Your task to perform on an android device: Open Android settings Image 0: 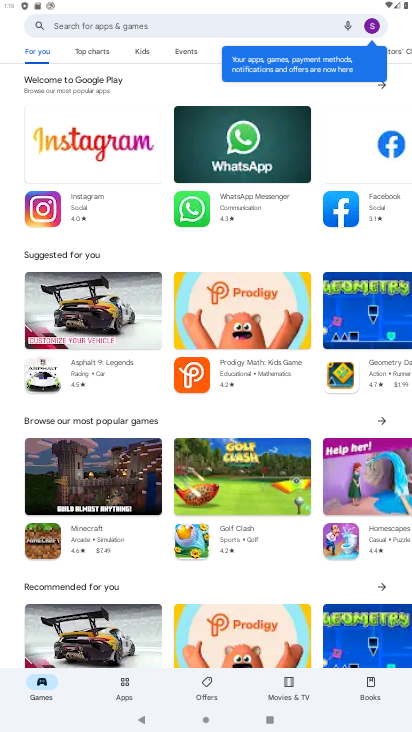
Step 0: press home button
Your task to perform on an android device: Open Android settings Image 1: 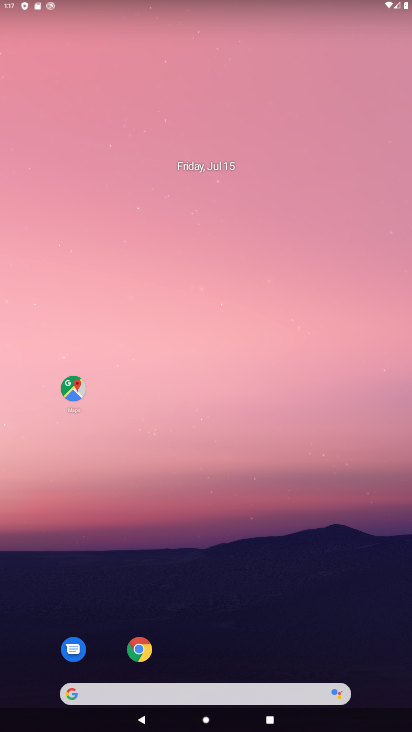
Step 1: drag from (163, 703) to (131, 32)
Your task to perform on an android device: Open Android settings Image 2: 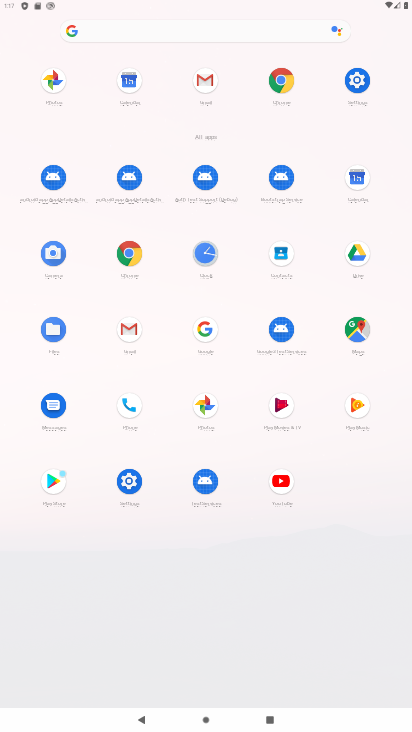
Step 2: click (353, 70)
Your task to perform on an android device: Open Android settings Image 3: 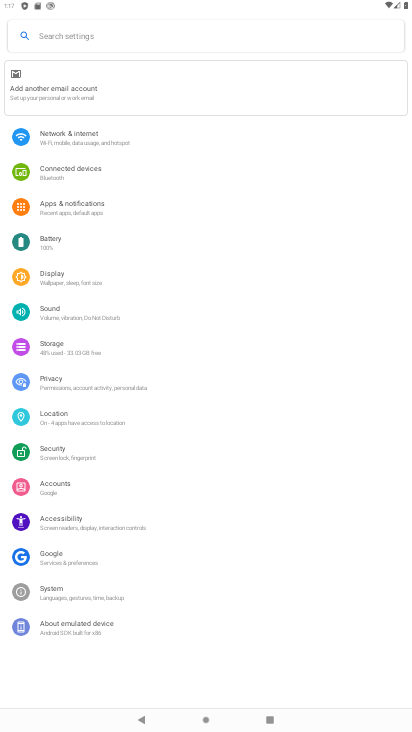
Step 3: click (121, 618)
Your task to perform on an android device: Open Android settings Image 4: 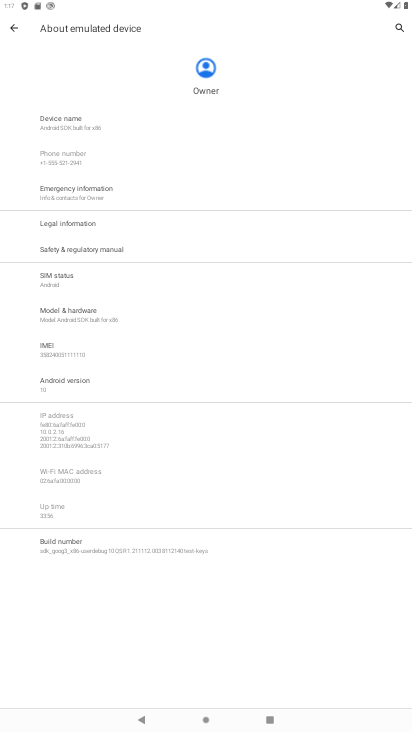
Step 4: task complete